Your task to perform on an android device: delete a single message in the gmail app Image 0: 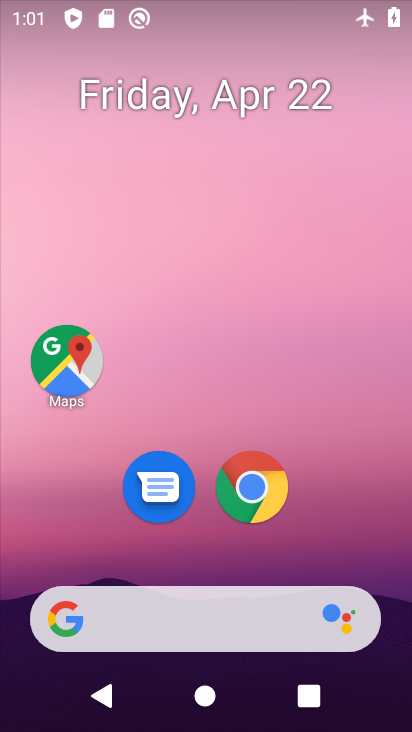
Step 0: drag from (193, 564) to (212, 123)
Your task to perform on an android device: delete a single message in the gmail app Image 1: 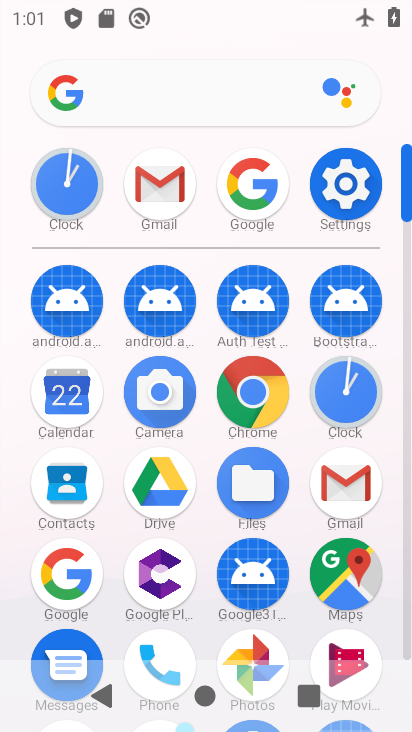
Step 1: click (171, 185)
Your task to perform on an android device: delete a single message in the gmail app Image 2: 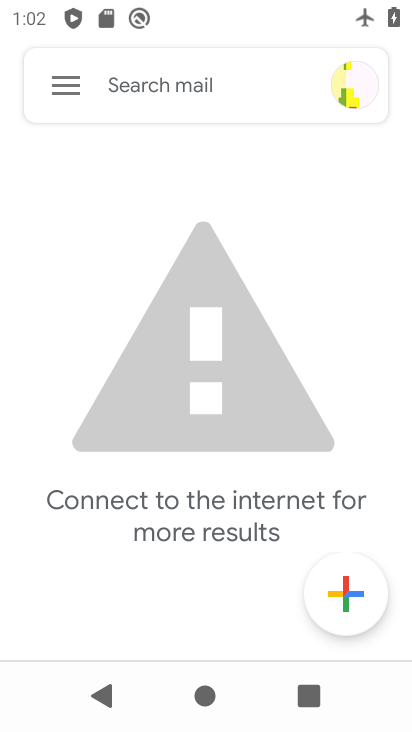
Step 2: click (72, 90)
Your task to perform on an android device: delete a single message in the gmail app Image 3: 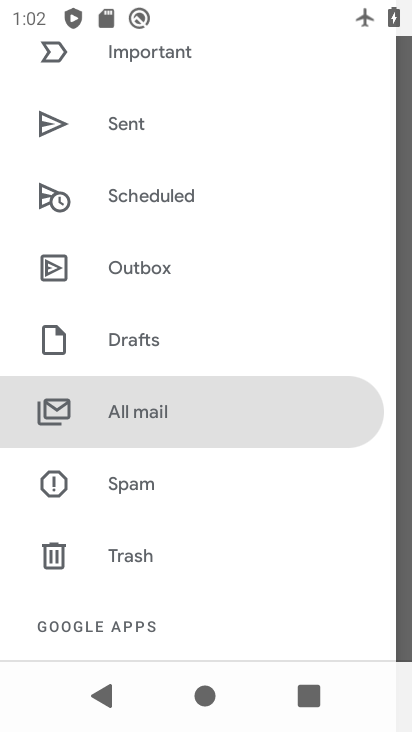
Step 3: click (159, 403)
Your task to perform on an android device: delete a single message in the gmail app Image 4: 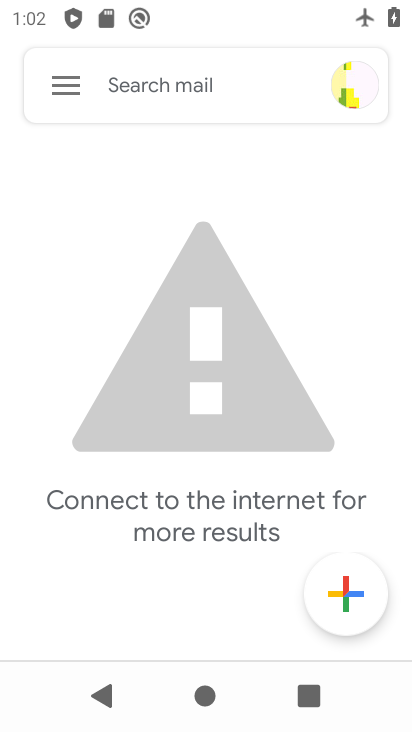
Step 4: task complete